Your task to perform on an android device: turn off priority inbox in the gmail app Image 0: 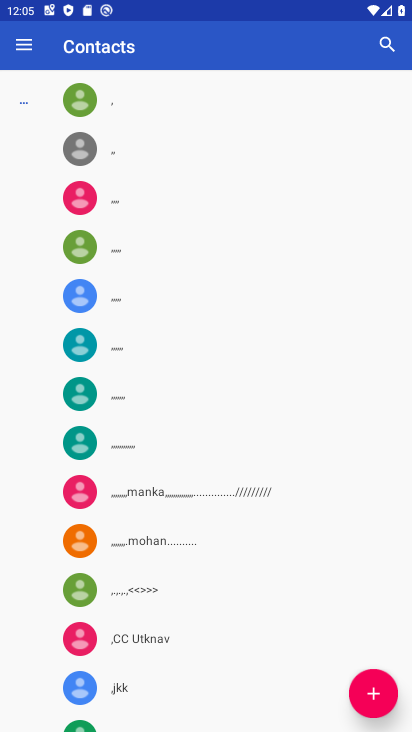
Step 0: press home button
Your task to perform on an android device: turn off priority inbox in the gmail app Image 1: 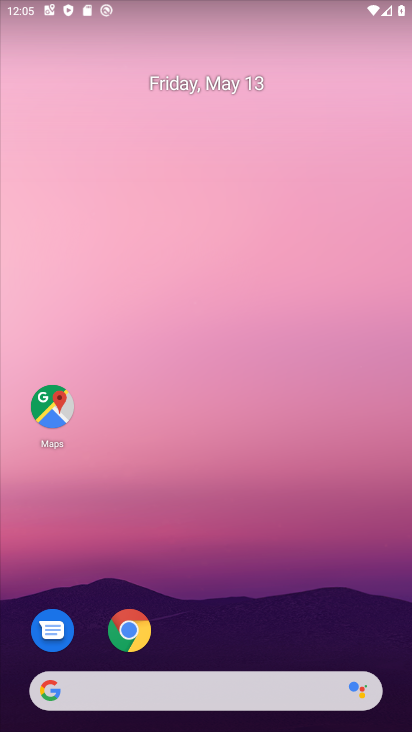
Step 1: drag from (371, 636) to (351, 239)
Your task to perform on an android device: turn off priority inbox in the gmail app Image 2: 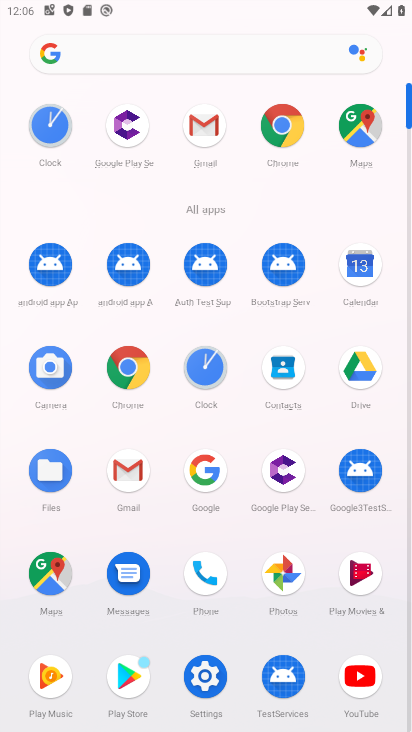
Step 2: click (137, 485)
Your task to perform on an android device: turn off priority inbox in the gmail app Image 3: 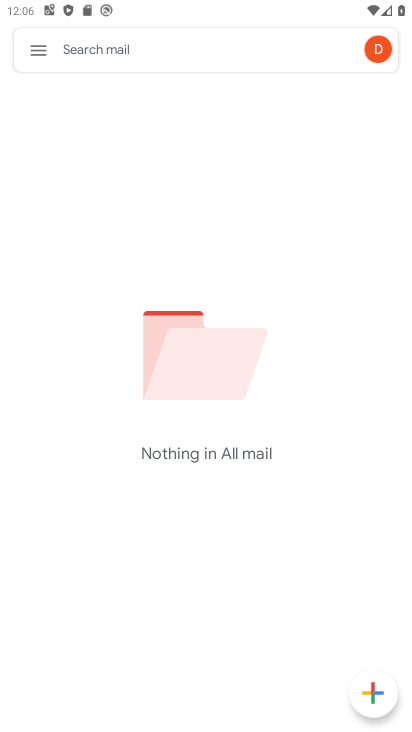
Step 3: click (42, 52)
Your task to perform on an android device: turn off priority inbox in the gmail app Image 4: 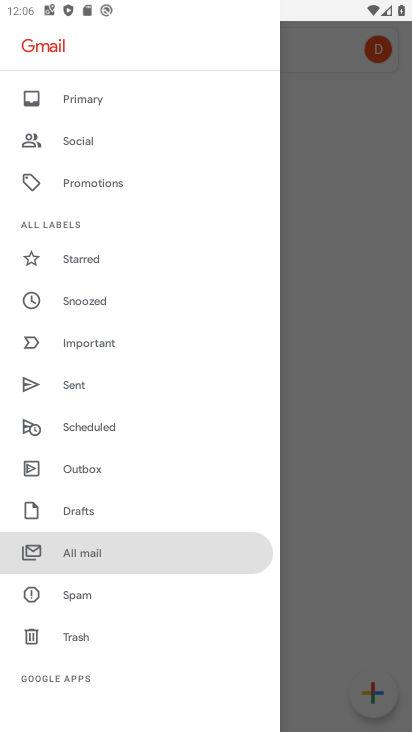
Step 4: drag from (138, 669) to (263, 343)
Your task to perform on an android device: turn off priority inbox in the gmail app Image 5: 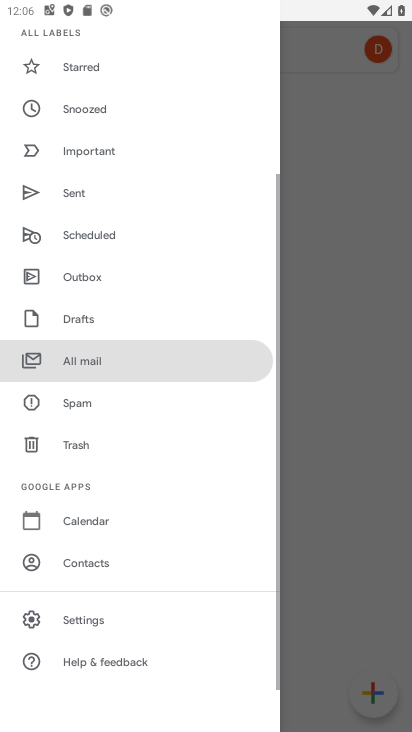
Step 5: click (101, 637)
Your task to perform on an android device: turn off priority inbox in the gmail app Image 6: 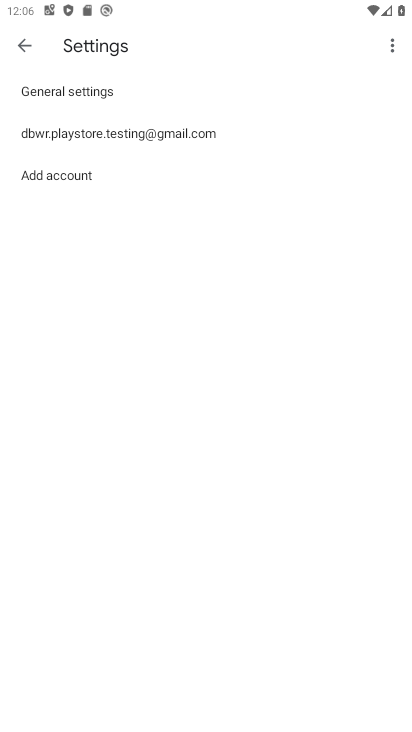
Step 6: click (131, 141)
Your task to perform on an android device: turn off priority inbox in the gmail app Image 7: 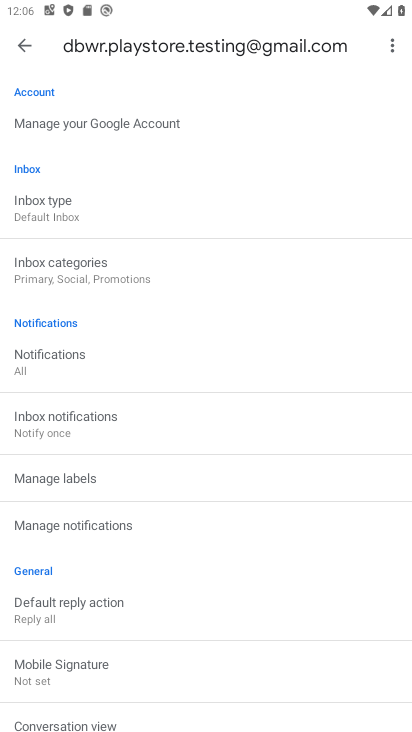
Step 7: task complete